Your task to perform on an android device: toggle translation in the chrome app Image 0: 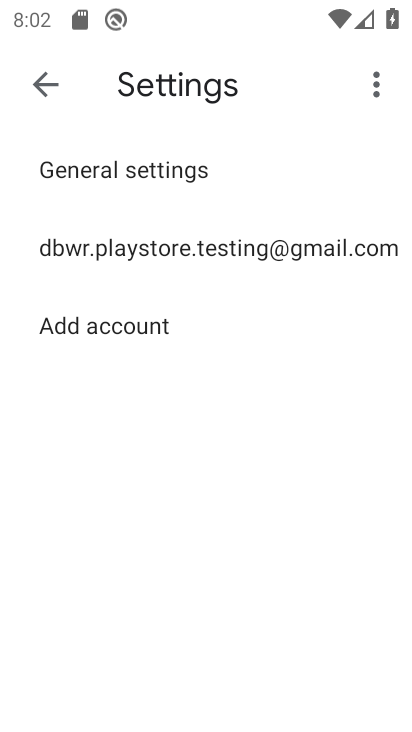
Step 0: press home button
Your task to perform on an android device: toggle translation in the chrome app Image 1: 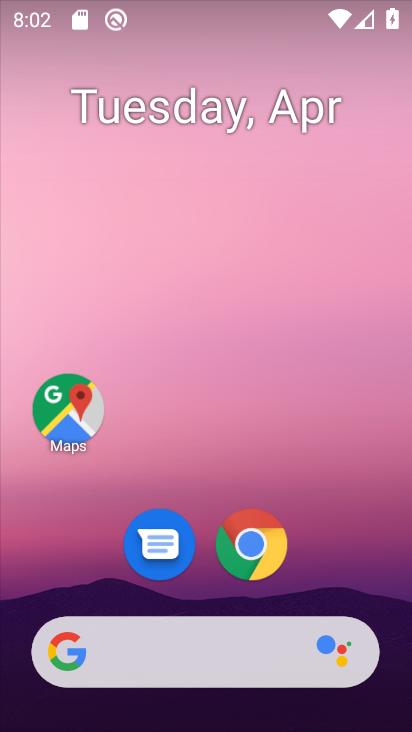
Step 1: drag from (163, 653) to (282, 220)
Your task to perform on an android device: toggle translation in the chrome app Image 2: 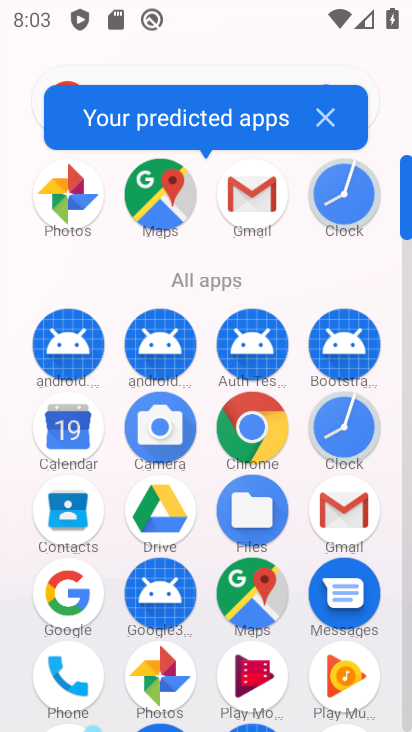
Step 2: click (252, 434)
Your task to perform on an android device: toggle translation in the chrome app Image 3: 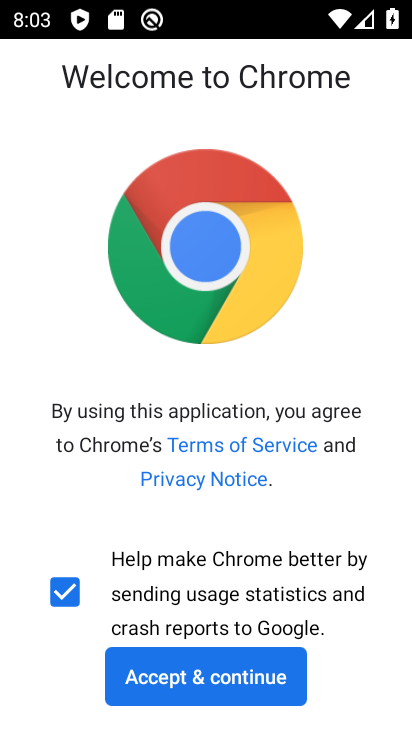
Step 3: click (225, 677)
Your task to perform on an android device: toggle translation in the chrome app Image 4: 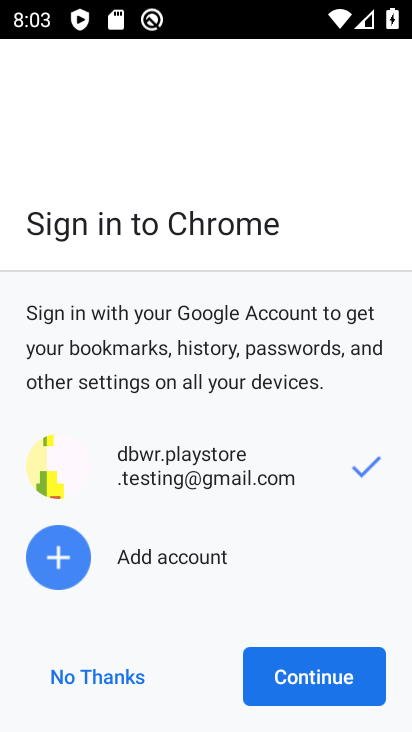
Step 4: click (318, 679)
Your task to perform on an android device: toggle translation in the chrome app Image 5: 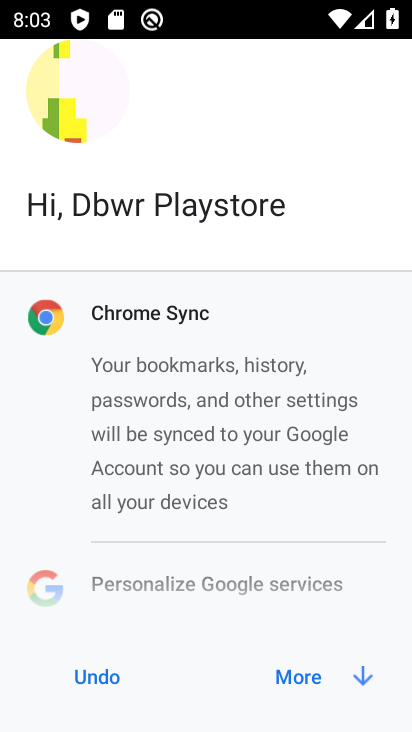
Step 5: click (319, 679)
Your task to perform on an android device: toggle translation in the chrome app Image 6: 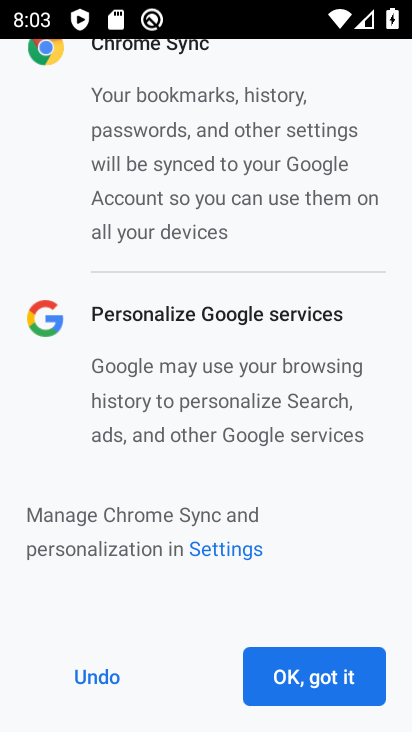
Step 6: click (319, 679)
Your task to perform on an android device: toggle translation in the chrome app Image 7: 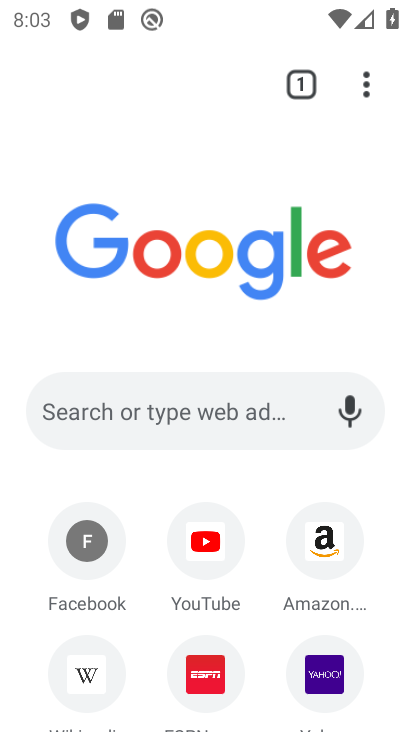
Step 7: click (362, 83)
Your task to perform on an android device: toggle translation in the chrome app Image 8: 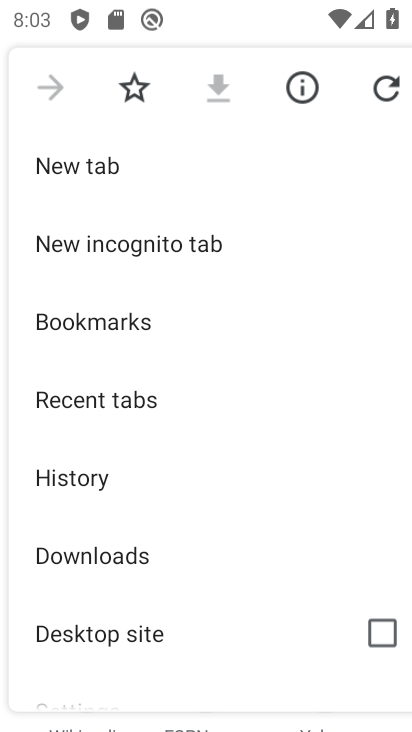
Step 8: drag from (210, 599) to (335, 216)
Your task to perform on an android device: toggle translation in the chrome app Image 9: 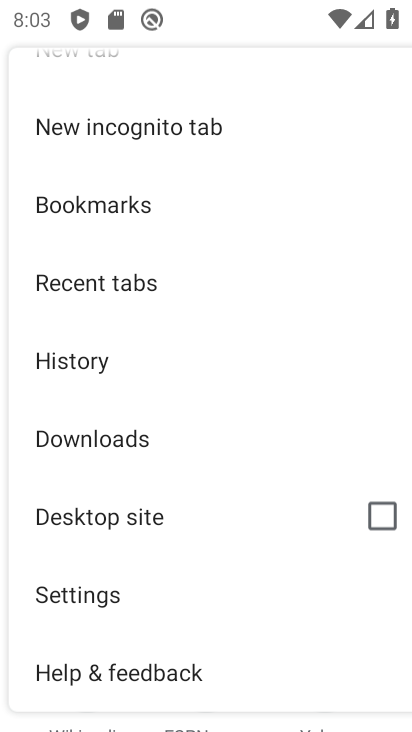
Step 9: click (96, 597)
Your task to perform on an android device: toggle translation in the chrome app Image 10: 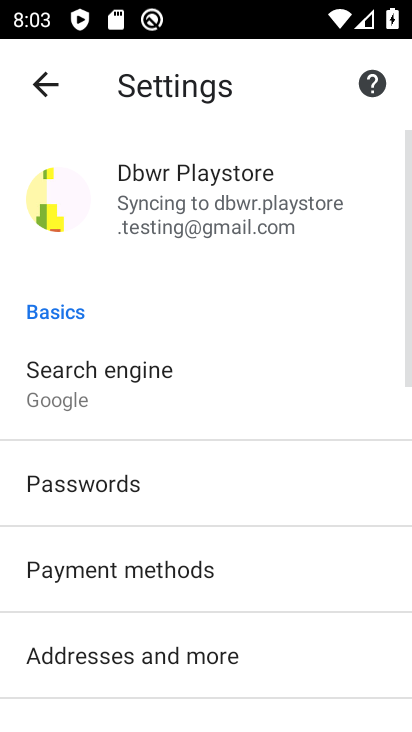
Step 10: drag from (231, 625) to (319, 220)
Your task to perform on an android device: toggle translation in the chrome app Image 11: 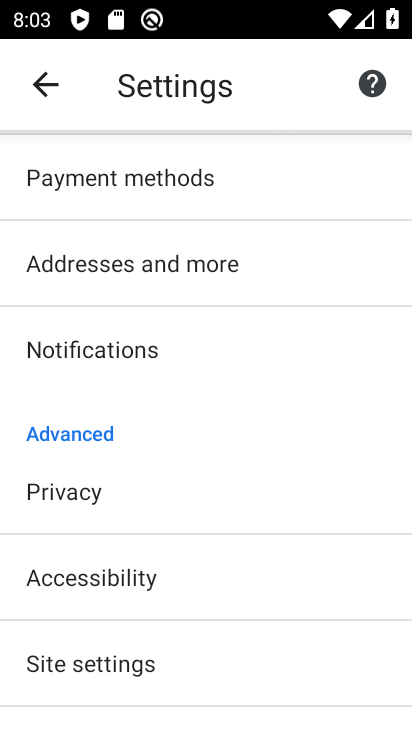
Step 11: drag from (208, 602) to (259, 268)
Your task to perform on an android device: toggle translation in the chrome app Image 12: 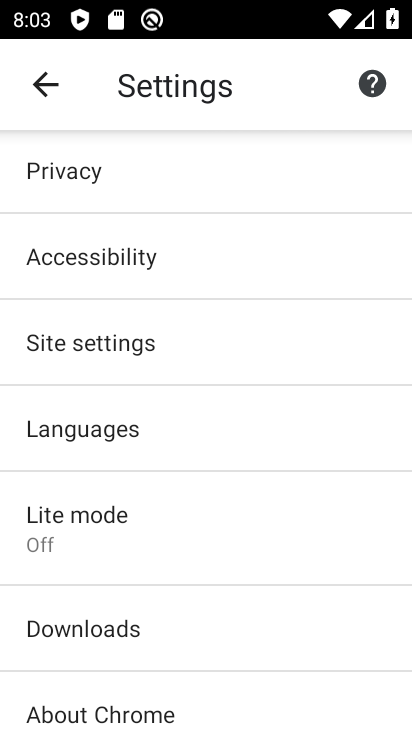
Step 12: click (170, 429)
Your task to perform on an android device: toggle translation in the chrome app Image 13: 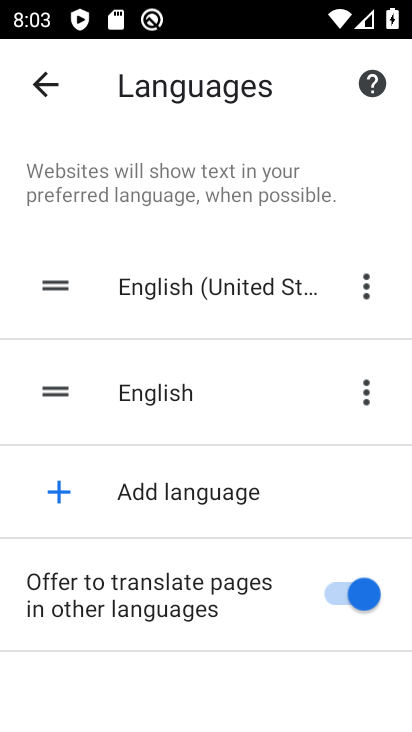
Step 13: click (344, 598)
Your task to perform on an android device: toggle translation in the chrome app Image 14: 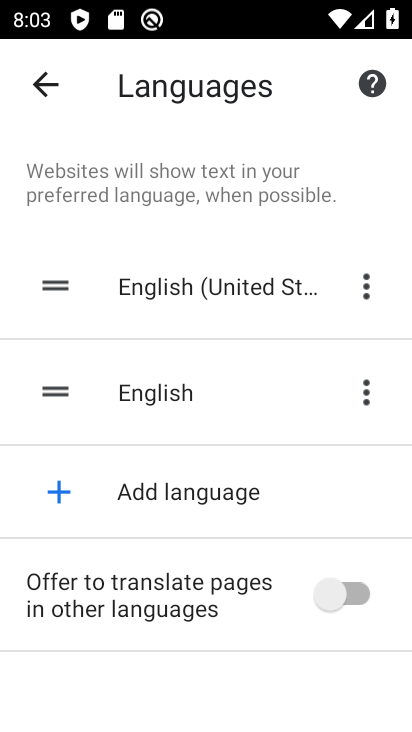
Step 14: task complete